Your task to perform on an android device: Go to notification settings Image 0: 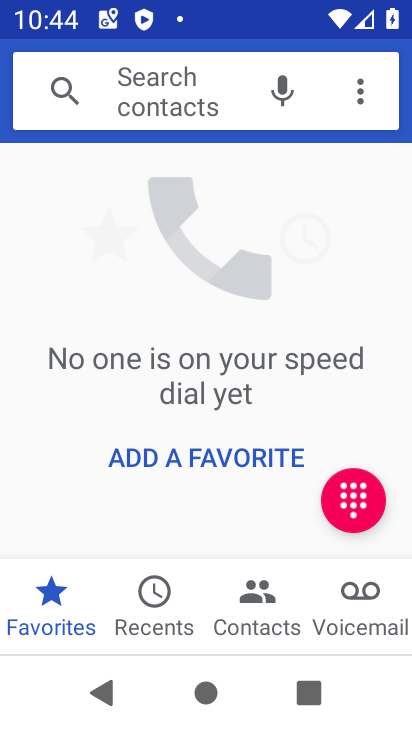
Step 0: press home button
Your task to perform on an android device: Go to notification settings Image 1: 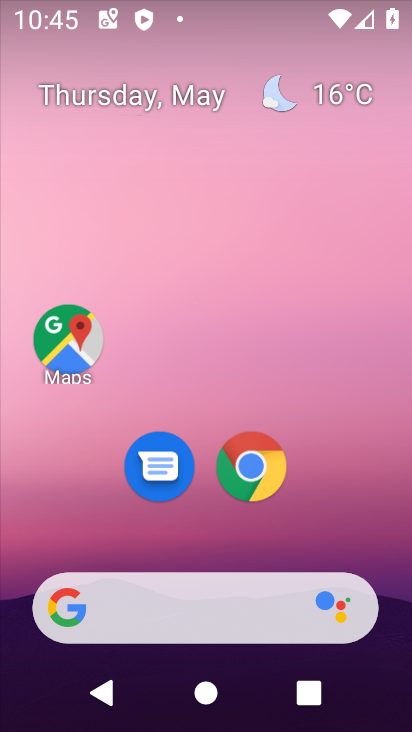
Step 1: click (305, 503)
Your task to perform on an android device: Go to notification settings Image 2: 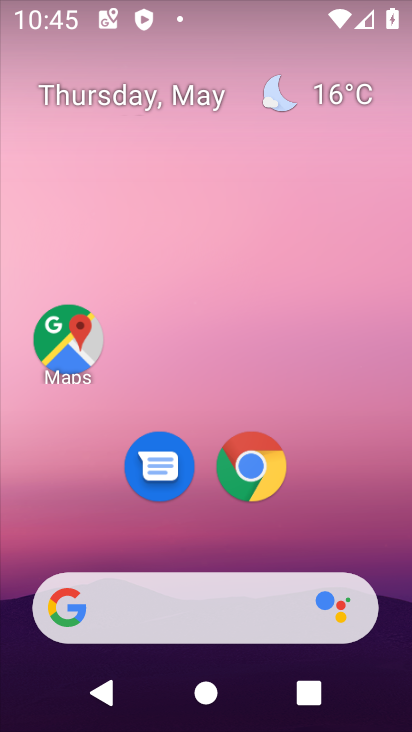
Step 2: drag from (313, 472) to (334, 320)
Your task to perform on an android device: Go to notification settings Image 3: 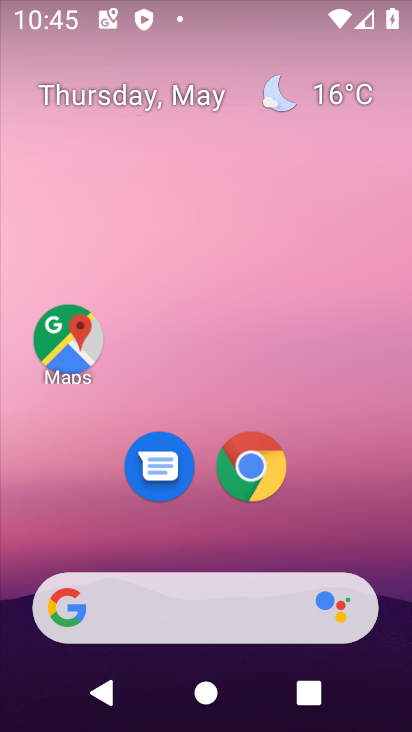
Step 3: drag from (262, 511) to (319, 221)
Your task to perform on an android device: Go to notification settings Image 4: 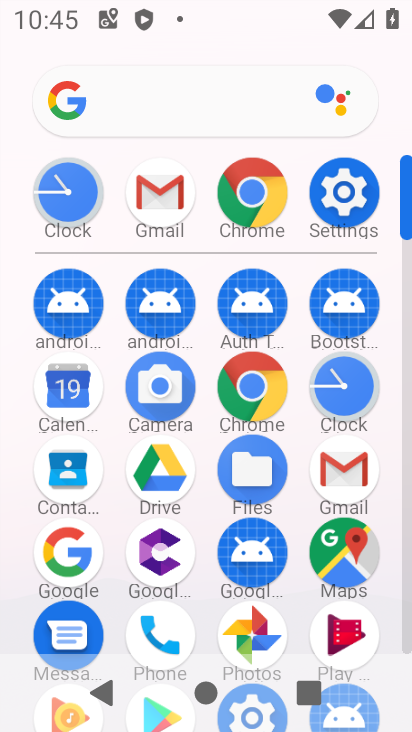
Step 4: click (337, 193)
Your task to perform on an android device: Go to notification settings Image 5: 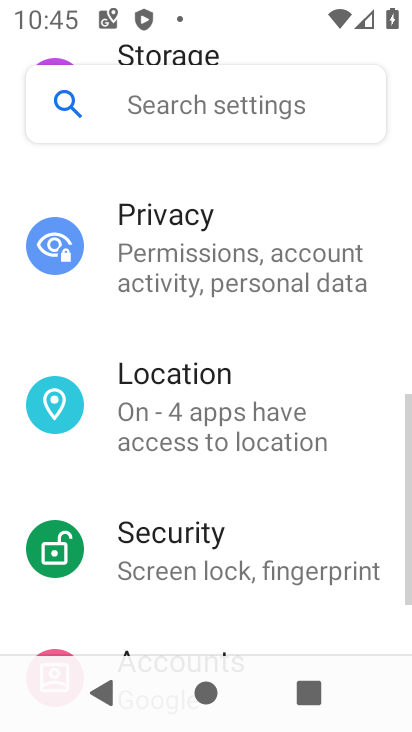
Step 5: drag from (242, 203) to (205, 561)
Your task to perform on an android device: Go to notification settings Image 6: 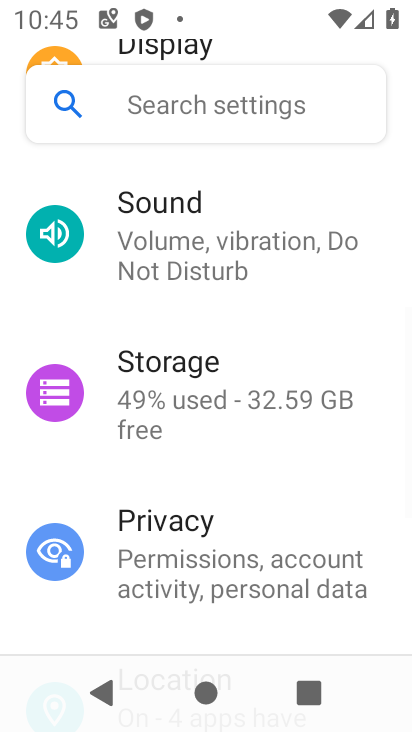
Step 6: drag from (214, 230) to (206, 521)
Your task to perform on an android device: Go to notification settings Image 7: 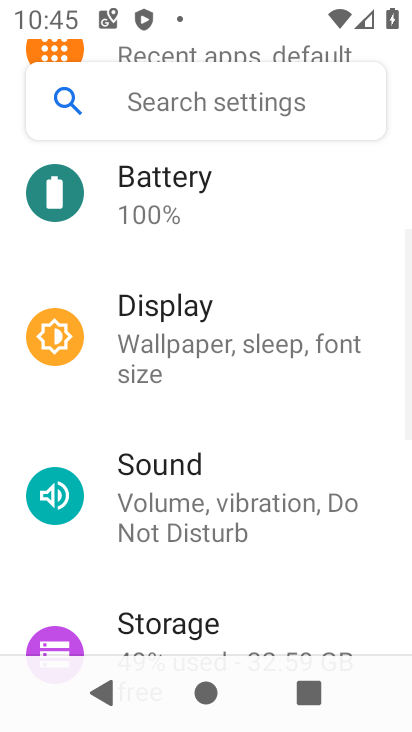
Step 7: drag from (242, 211) to (213, 476)
Your task to perform on an android device: Go to notification settings Image 8: 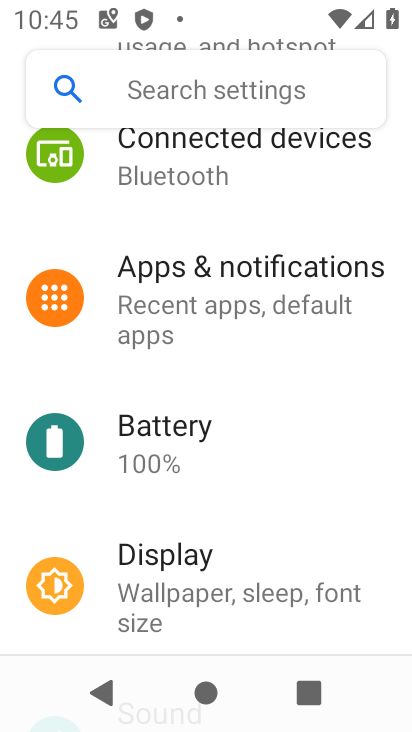
Step 8: click (228, 288)
Your task to perform on an android device: Go to notification settings Image 9: 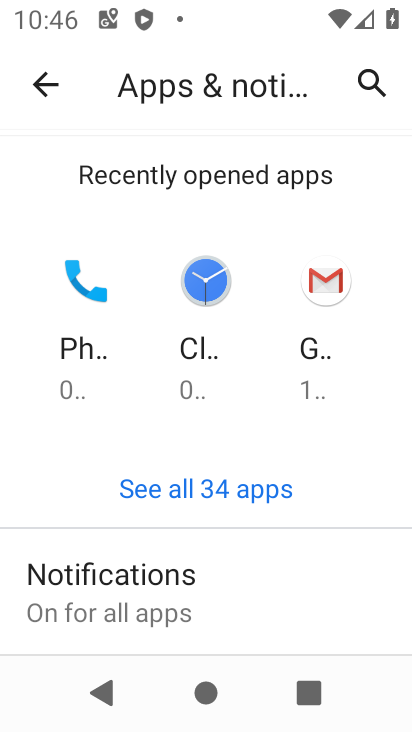
Step 9: click (184, 601)
Your task to perform on an android device: Go to notification settings Image 10: 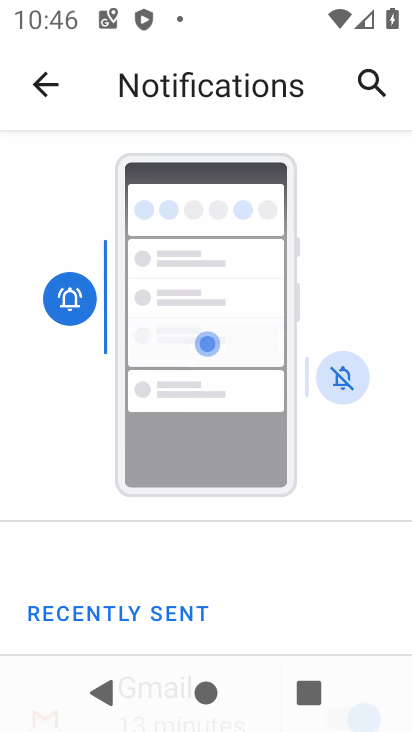
Step 10: task complete